Your task to perform on an android device: Show me the alarms in the clock app Image 0: 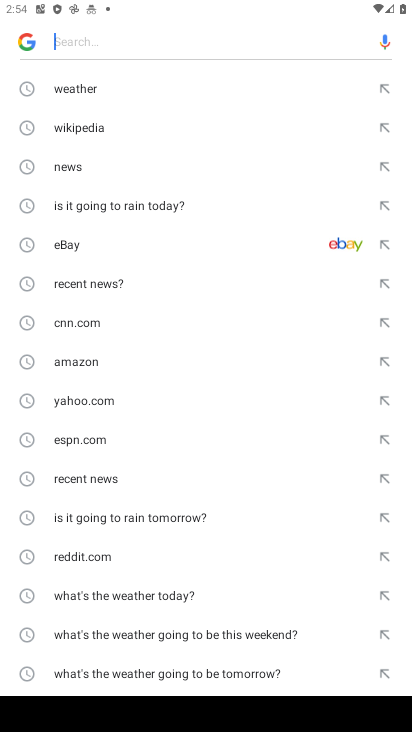
Step 0: press home button
Your task to perform on an android device: Show me the alarms in the clock app Image 1: 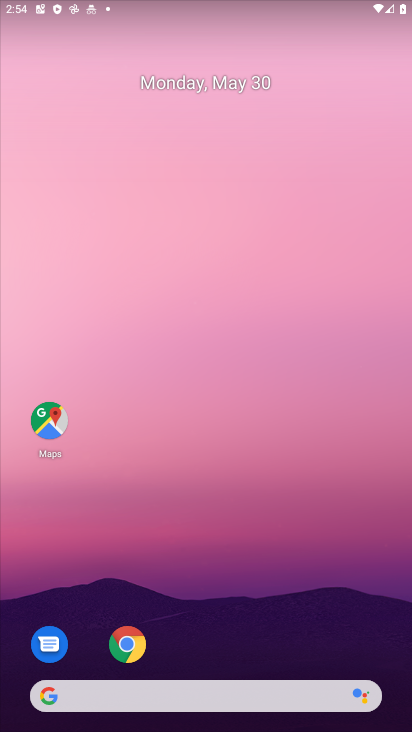
Step 1: drag from (268, 642) to (217, 52)
Your task to perform on an android device: Show me the alarms in the clock app Image 2: 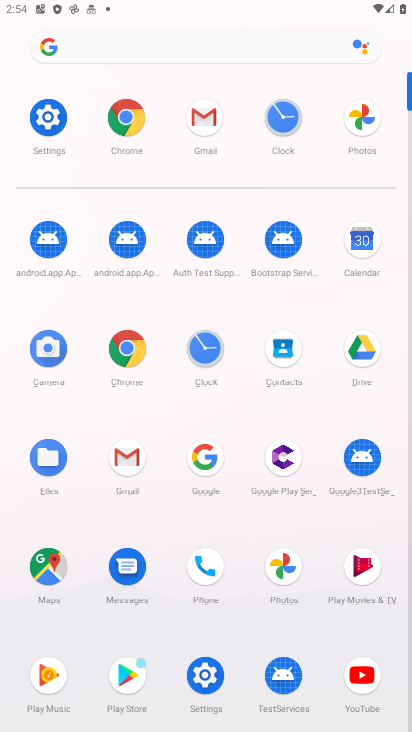
Step 2: click (260, 125)
Your task to perform on an android device: Show me the alarms in the clock app Image 3: 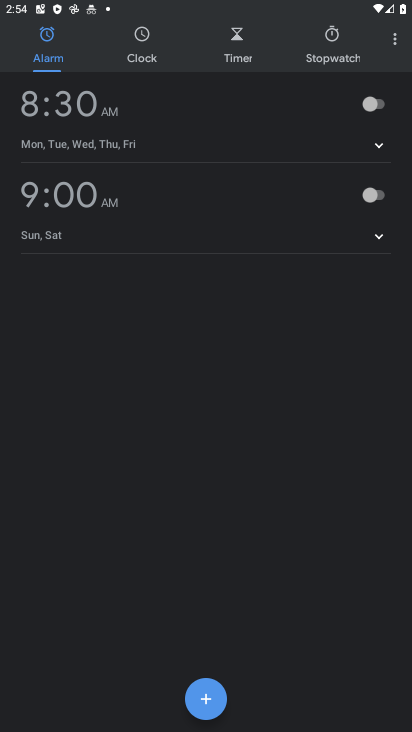
Step 3: task complete